Your task to perform on an android device: turn off notifications settings in the gmail app Image 0: 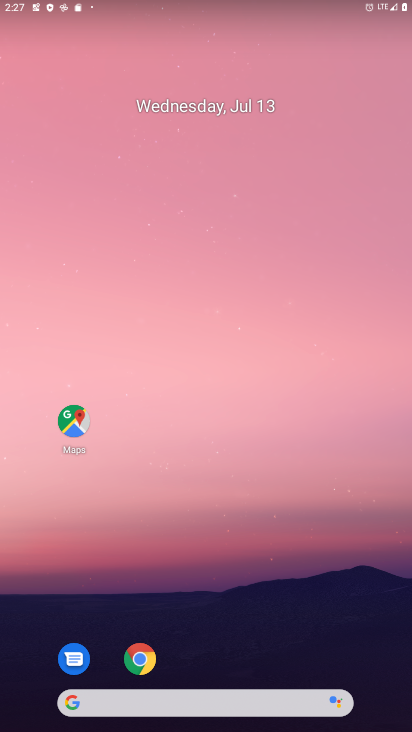
Step 0: drag from (205, 720) to (199, 180)
Your task to perform on an android device: turn off notifications settings in the gmail app Image 1: 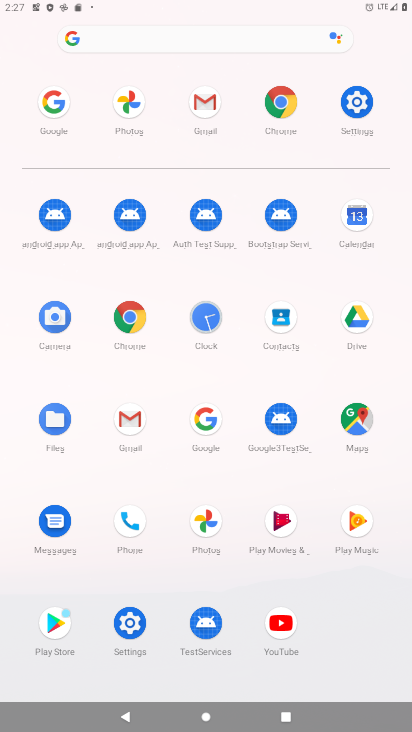
Step 1: click (126, 416)
Your task to perform on an android device: turn off notifications settings in the gmail app Image 2: 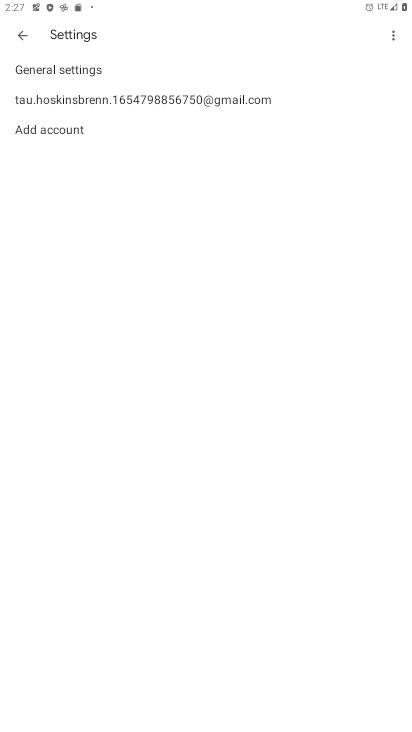
Step 2: click (124, 98)
Your task to perform on an android device: turn off notifications settings in the gmail app Image 3: 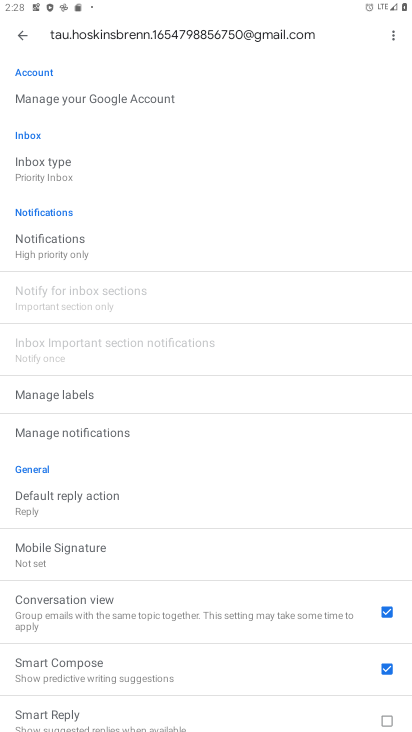
Step 3: click (61, 254)
Your task to perform on an android device: turn off notifications settings in the gmail app Image 4: 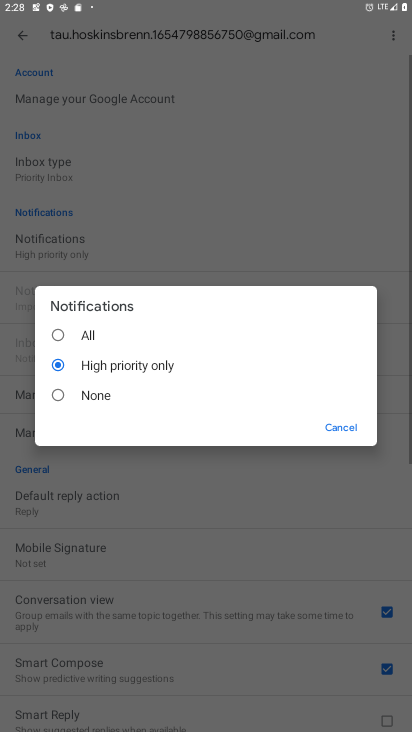
Step 4: click (57, 395)
Your task to perform on an android device: turn off notifications settings in the gmail app Image 5: 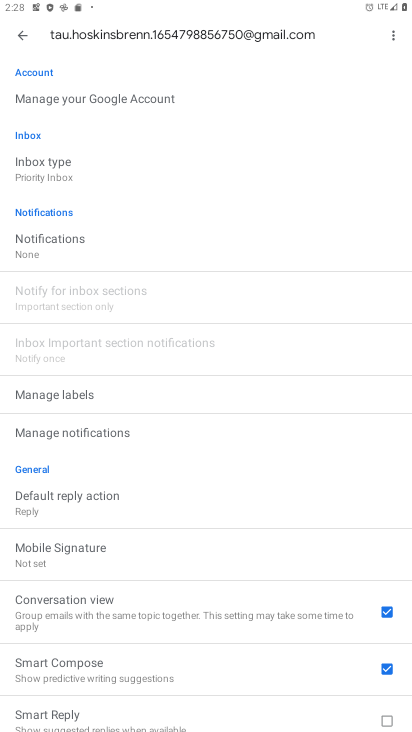
Step 5: task complete